Your task to perform on an android device: Open Amazon Image 0: 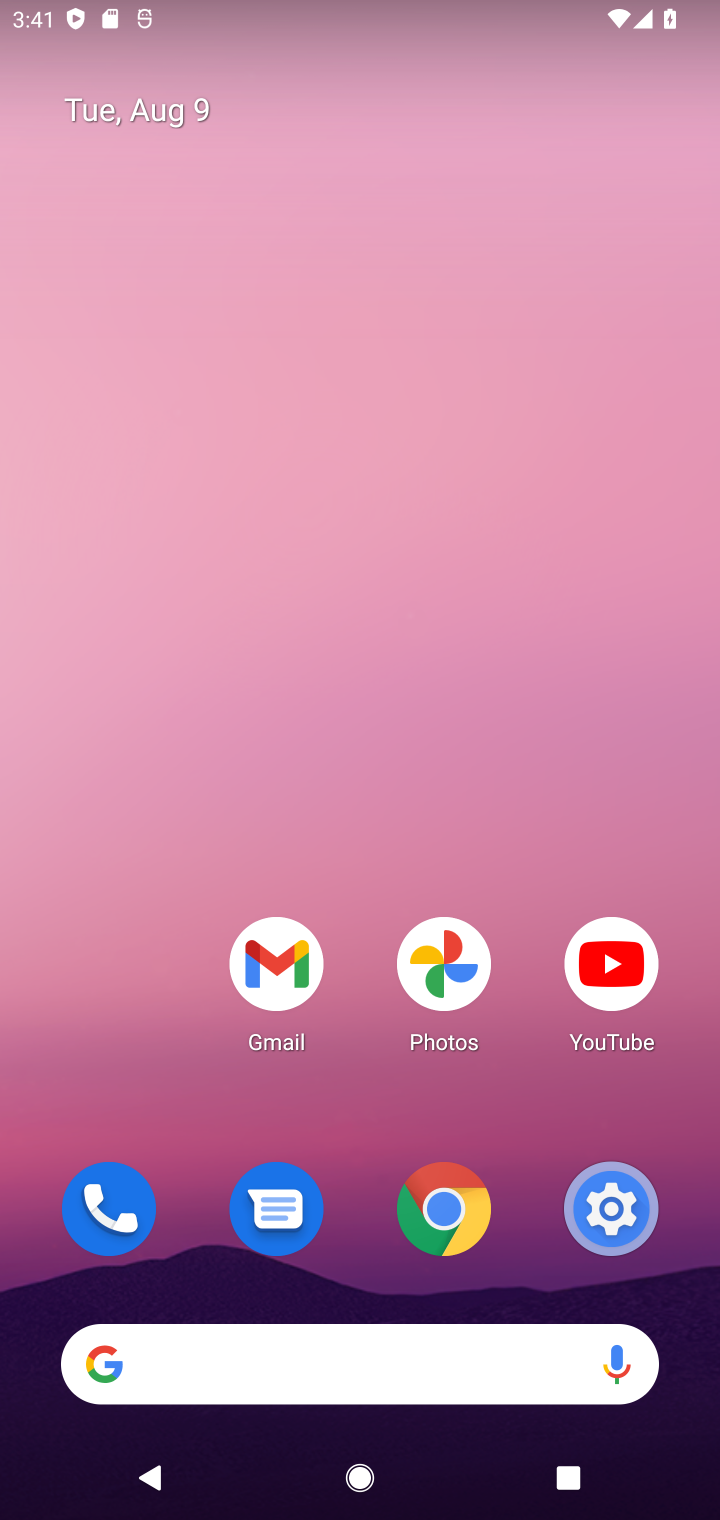
Step 0: click (452, 1217)
Your task to perform on an android device: Open Amazon Image 1: 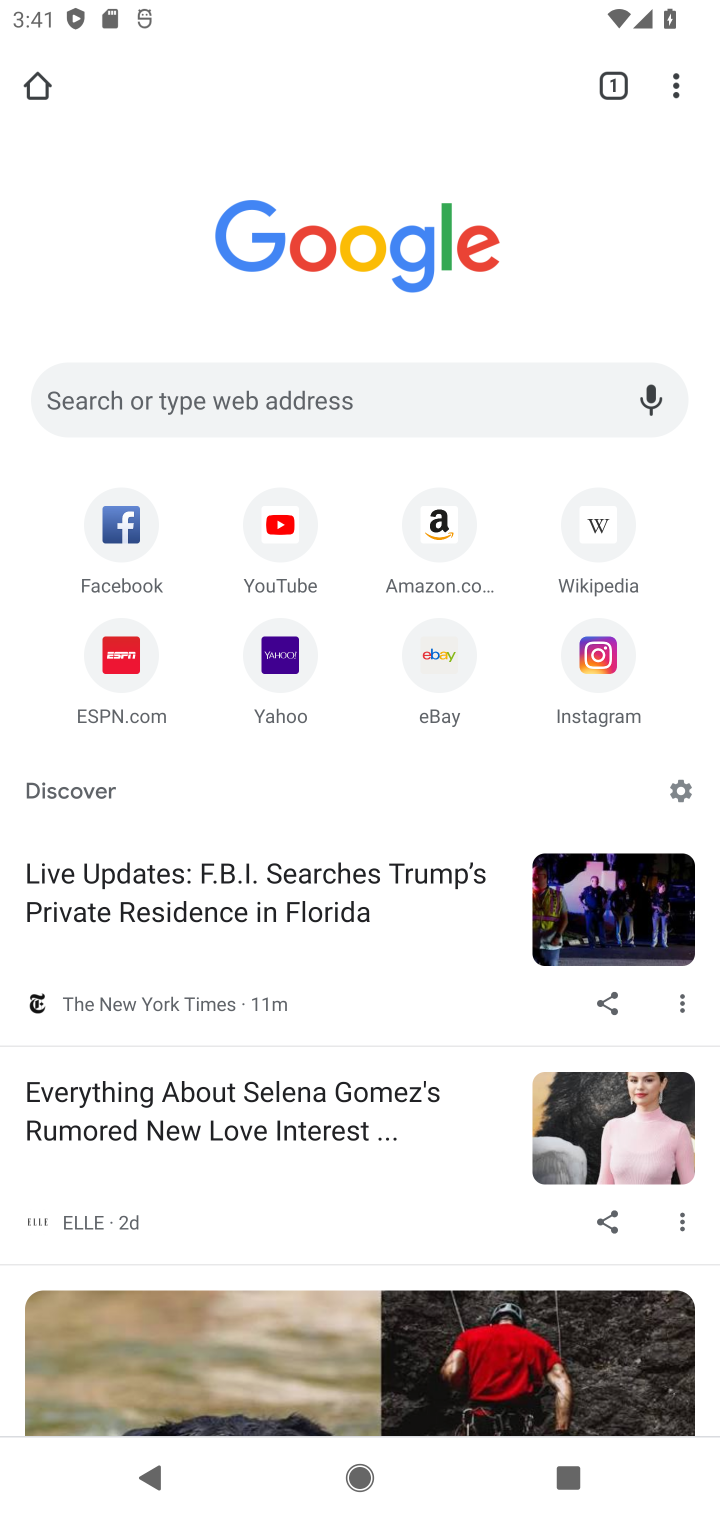
Step 1: click (442, 508)
Your task to perform on an android device: Open Amazon Image 2: 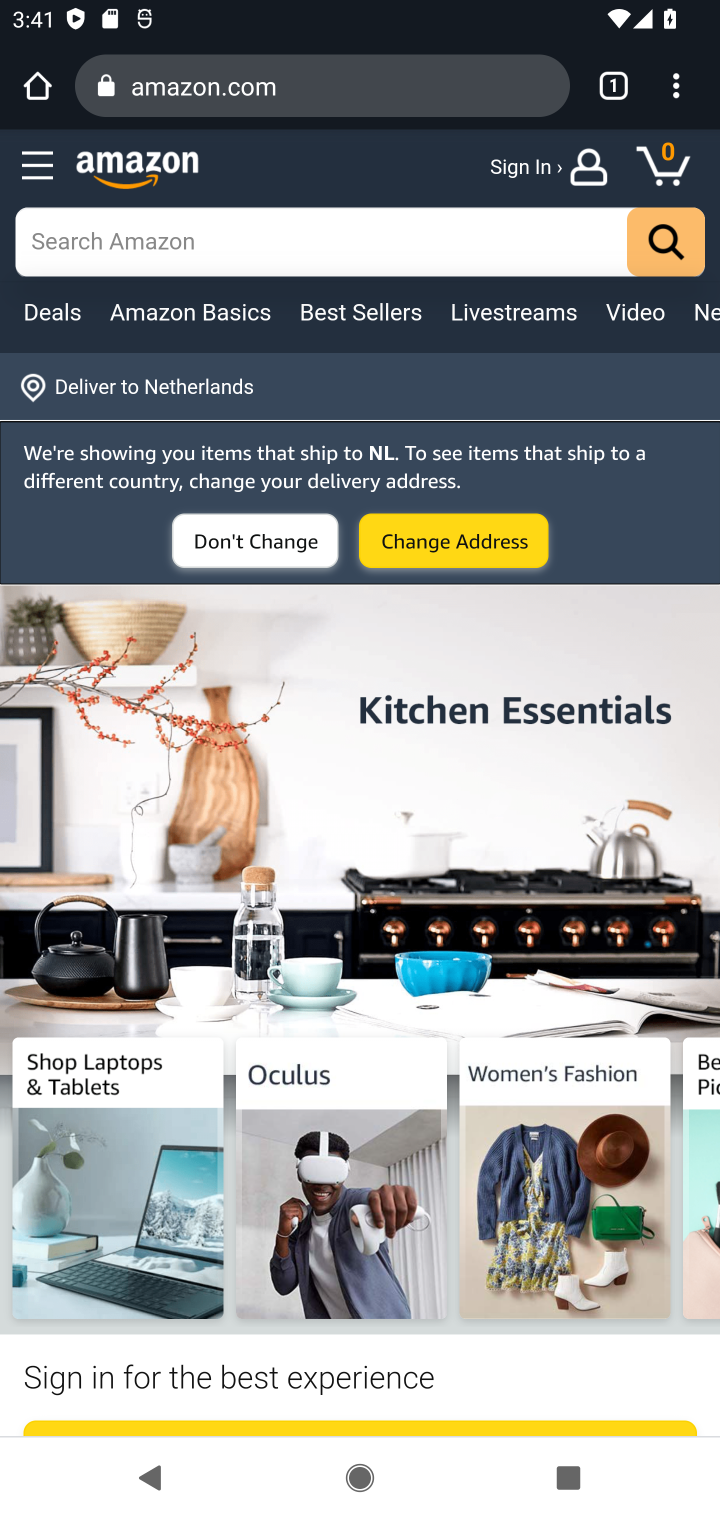
Step 2: task complete